Your task to perform on an android device: check battery use Image 0: 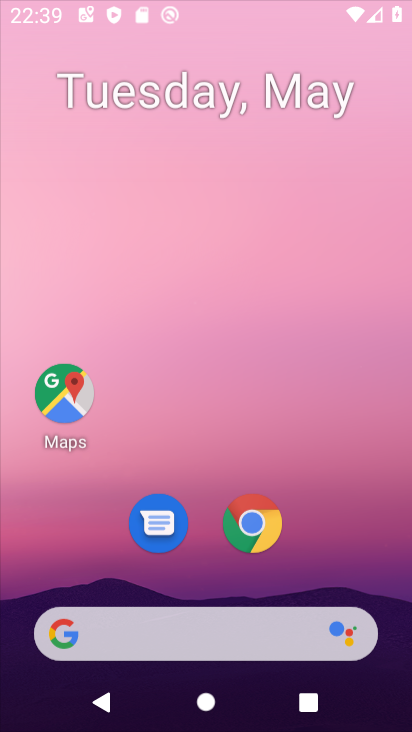
Step 0: click (278, 77)
Your task to perform on an android device: check battery use Image 1: 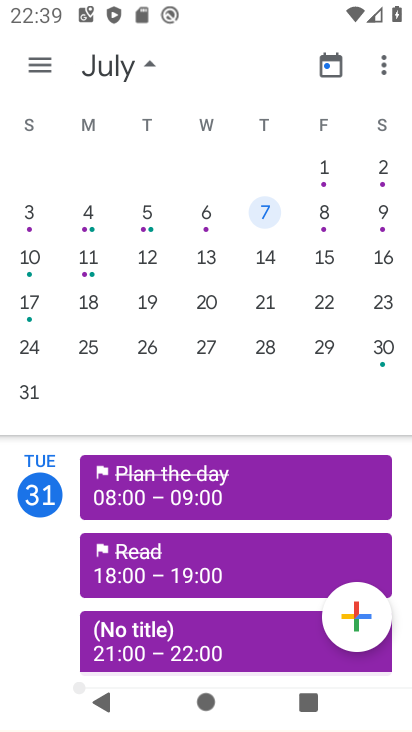
Step 1: drag from (219, 530) to (277, 85)
Your task to perform on an android device: check battery use Image 2: 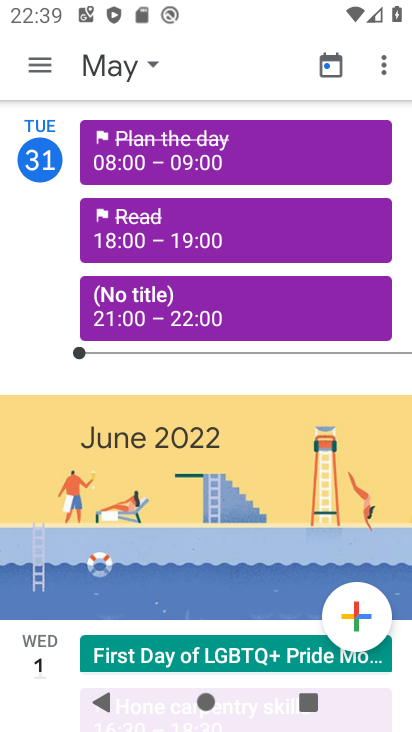
Step 2: drag from (257, 375) to (402, 655)
Your task to perform on an android device: check battery use Image 3: 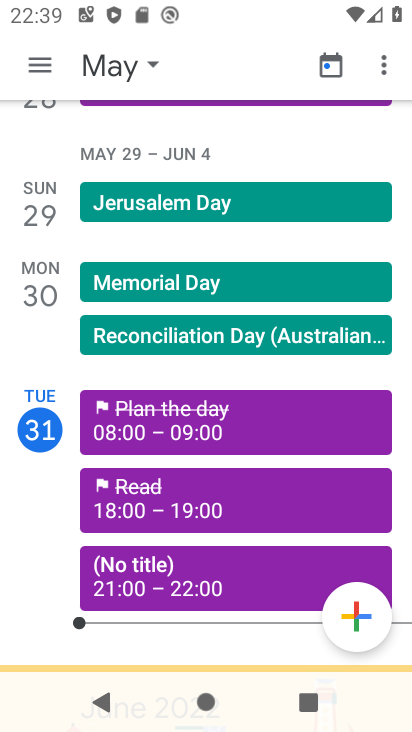
Step 3: press home button
Your task to perform on an android device: check battery use Image 4: 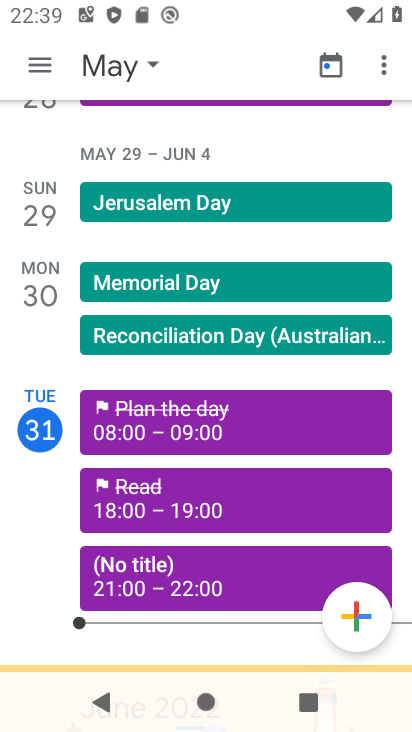
Step 4: drag from (402, 655) to (410, 544)
Your task to perform on an android device: check battery use Image 5: 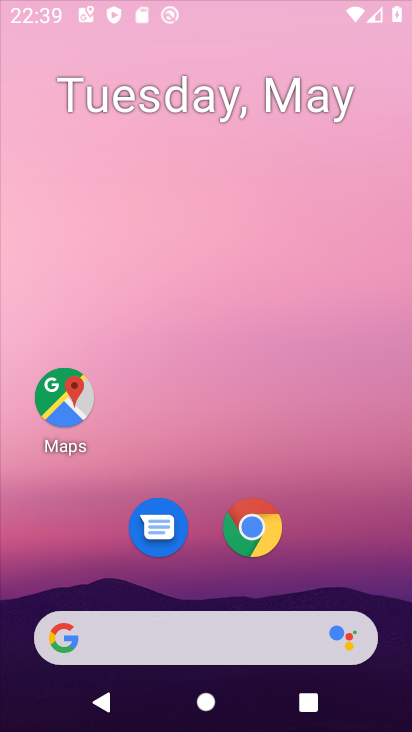
Step 5: click (259, 162)
Your task to perform on an android device: check battery use Image 6: 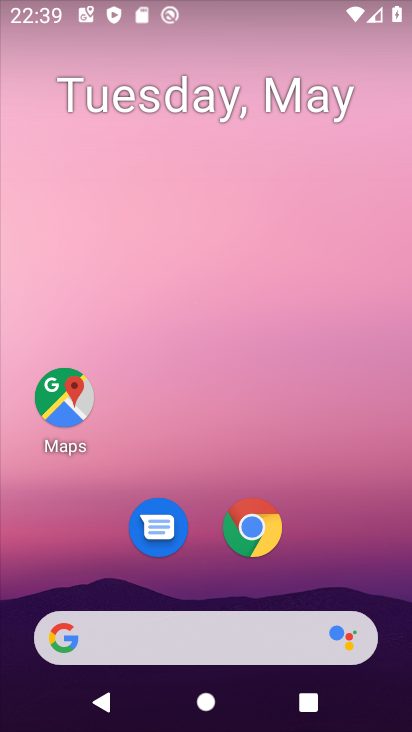
Step 6: drag from (217, 557) to (272, 60)
Your task to perform on an android device: check battery use Image 7: 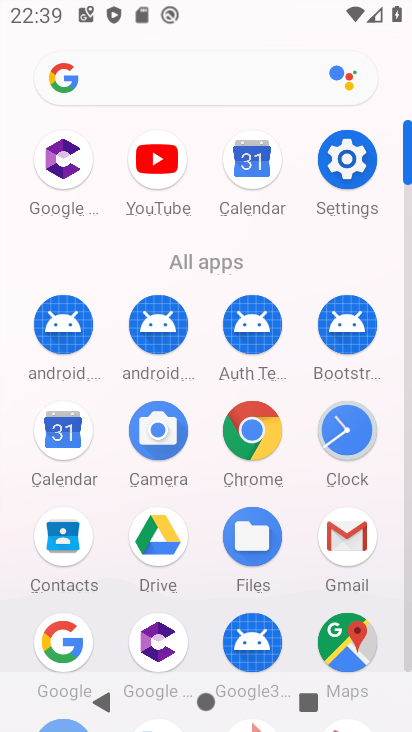
Step 7: click (351, 153)
Your task to perform on an android device: check battery use Image 8: 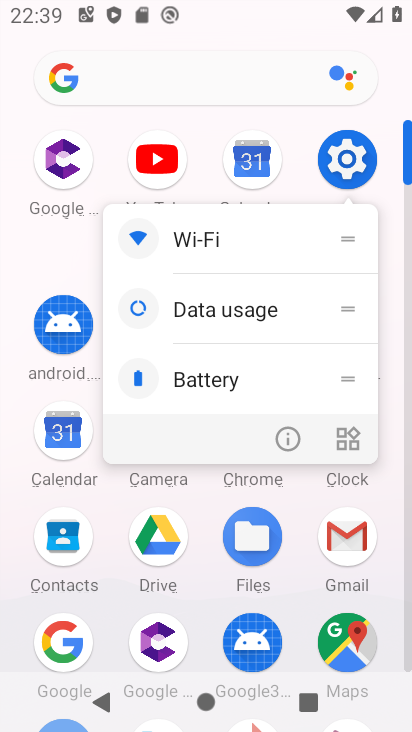
Step 8: click (279, 444)
Your task to perform on an android device: check battery use Image 9: 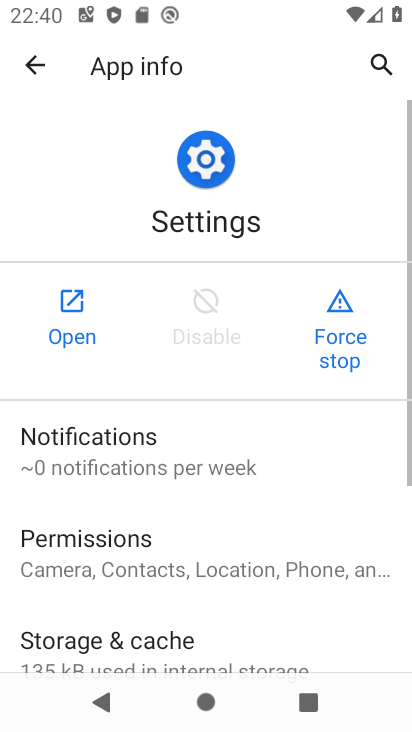
Step 9: click (36, 335)
Your task to perform on an android device: check battery use Image 10: 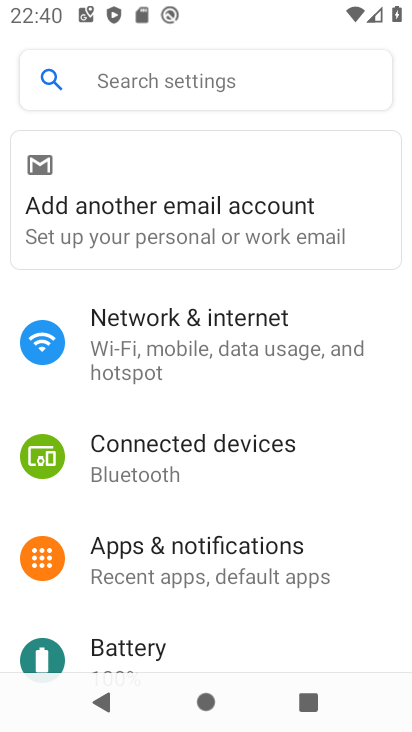
Step 10: drag from (252, 657) to (262, 74)
Your task to perform on an android device: check battery use Image 11: 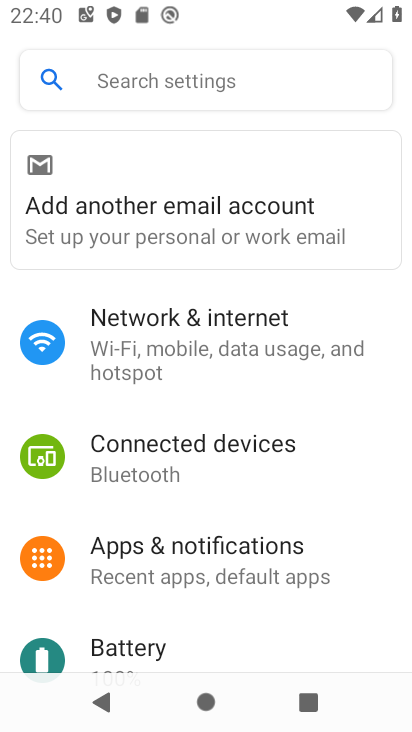
Step 11: click (193, 639)
Your task to perform on an android device: check battery use Image 12: 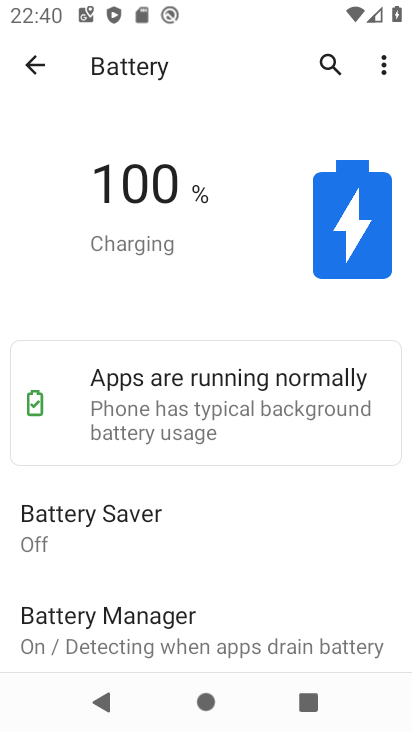
Step 12: drag from (204, 584) to (254, 100)
Your task to perform on an android device: check battery use Image 13: 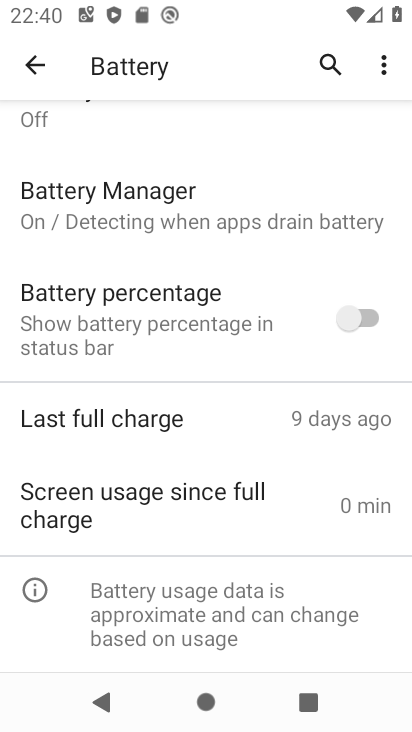
Step 13: drag from (188, 628) to (229, 288)
Your task to perform on an android device: check battery use Image 14: 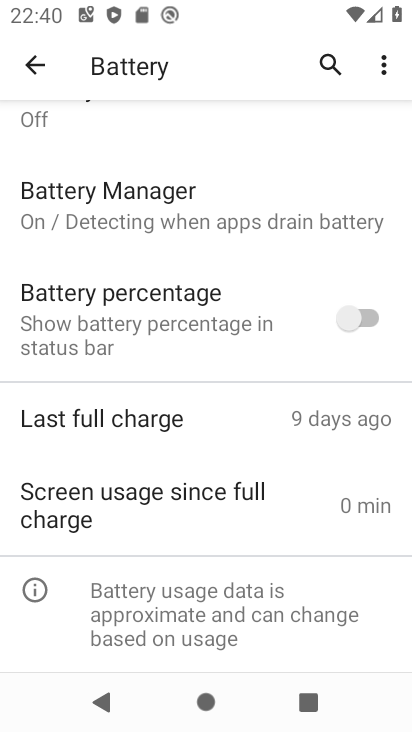
Step 14: drag from (178, 193) to (293, 577)
Your task to perform on an android device: check battery use Image 15: 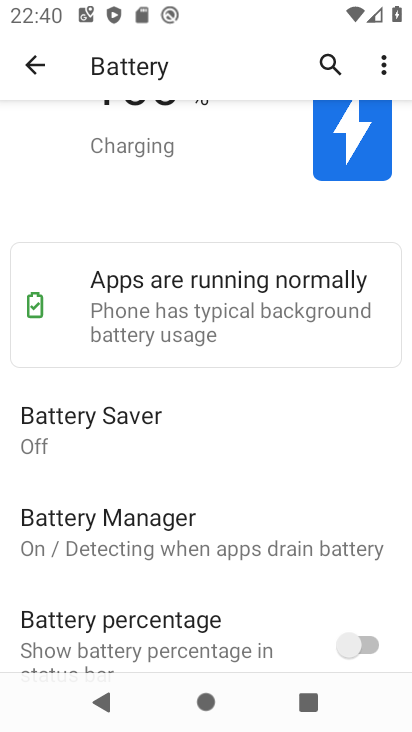
Step 15: drag from (162, 250) to (266, 487)
Your task to perform on an android device: check battery use Image 16: 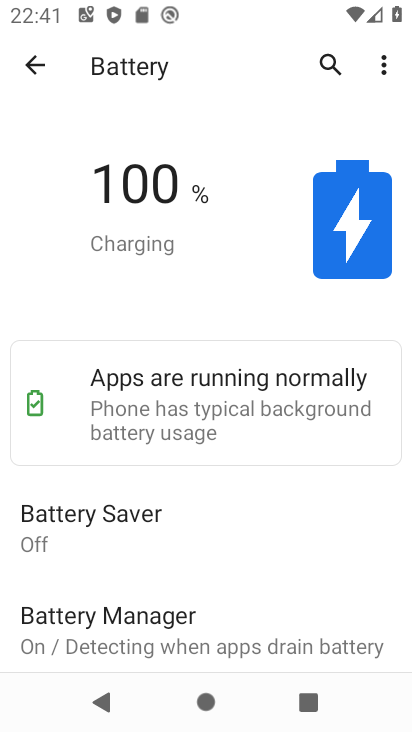
Step 16: drag from (194, 298) to (411, 631)
Your task to perform on an android device: check battery use Image 17: 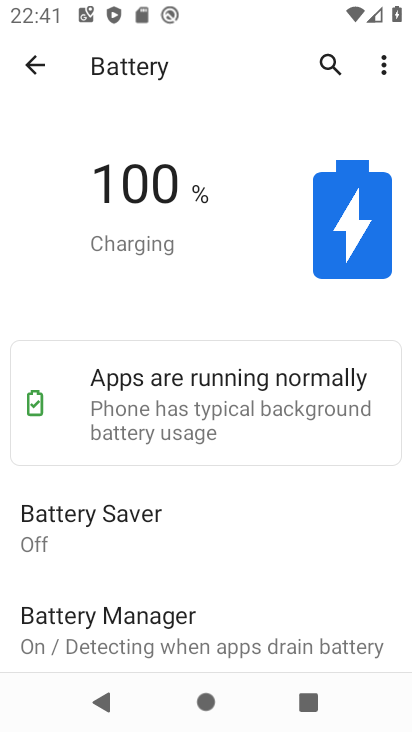
Step 17: drag from (196, 582) to (230, 331)
Your task to perform on an android device: check battery use Image 18: 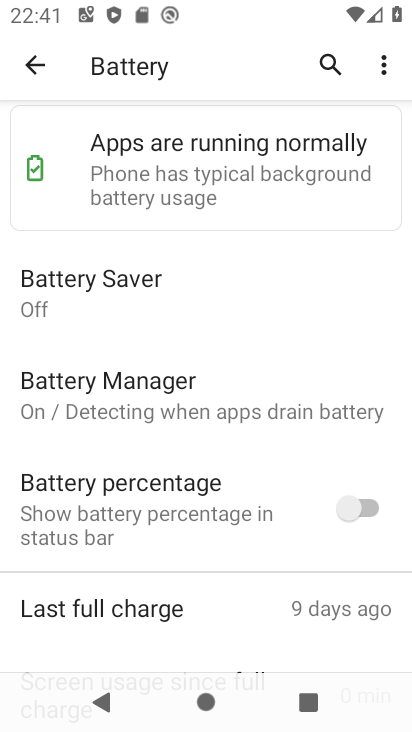
Step 18: click (139, 301)
Your task to perform on an android device: check battery use Image 19: 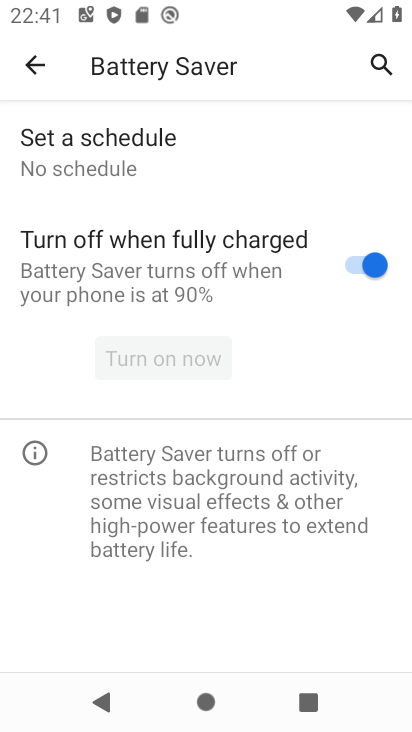
Step 19: click (175, 401)
Your task to perform on an android device: check battery use Image 20: 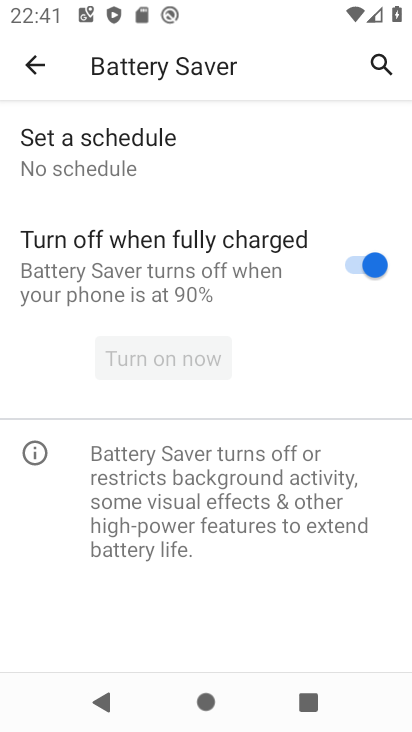
Step 20: drag from (139, 541) to (195, 135)
Your task to perform on an android device: check battery use Image 21: 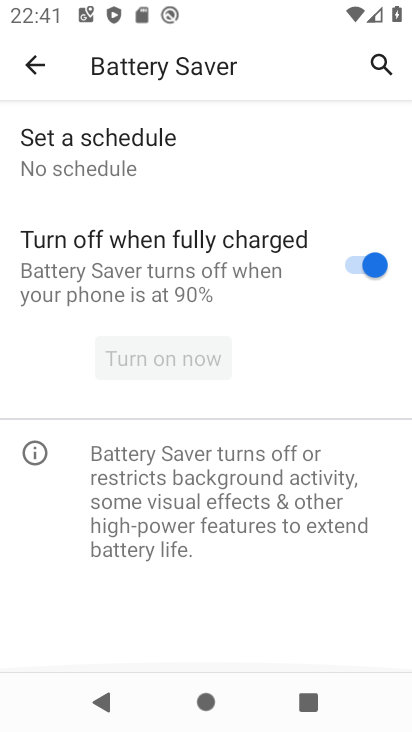
Step 21: drag from (179, 223) to (245, 493)
Your task to perform on an android device: check battery use Image 22: 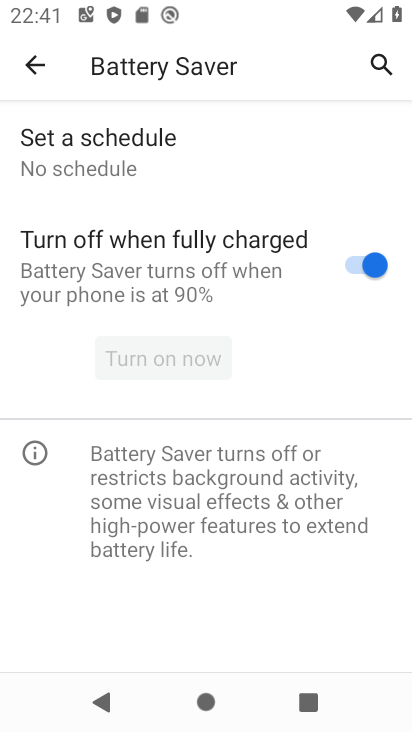
Step 22: drag from (196, 176) to (343, 506)
Your task to perform on an android device: check battery use Image 23: 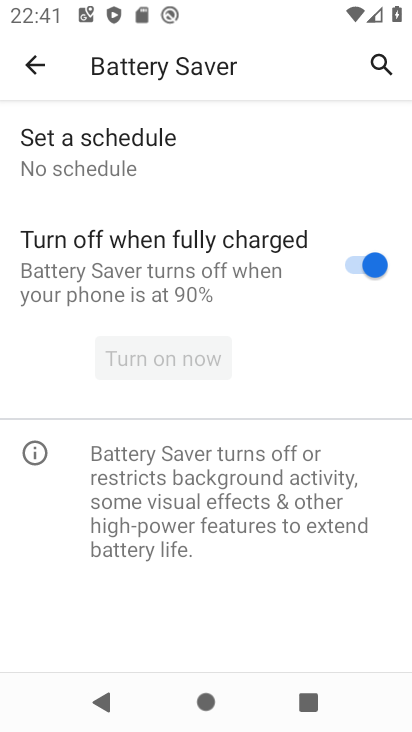
Step 23: drag from (189, 477) to (253, 193)
Your task to perform on an android device: check battery use Image 24: 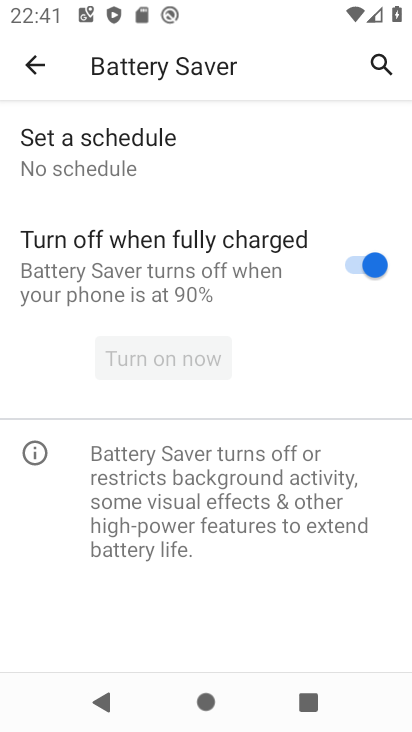
Step 24: click (25, 62)
Your task to perform on an android device: check battery use Image 25: 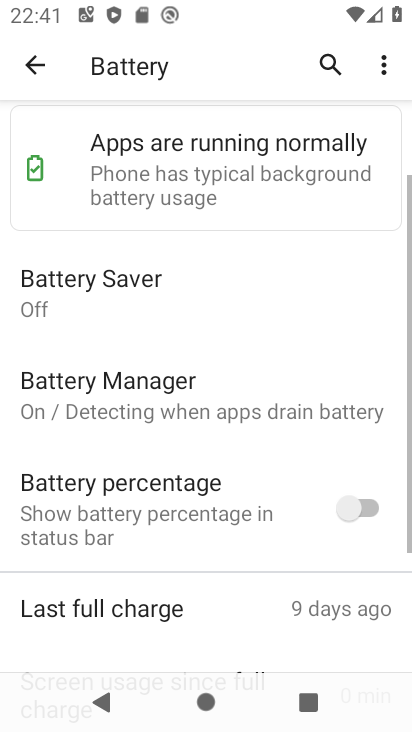
Step 25: click (378, 79)
Your task to perform on an android device: check battery use Image 26: 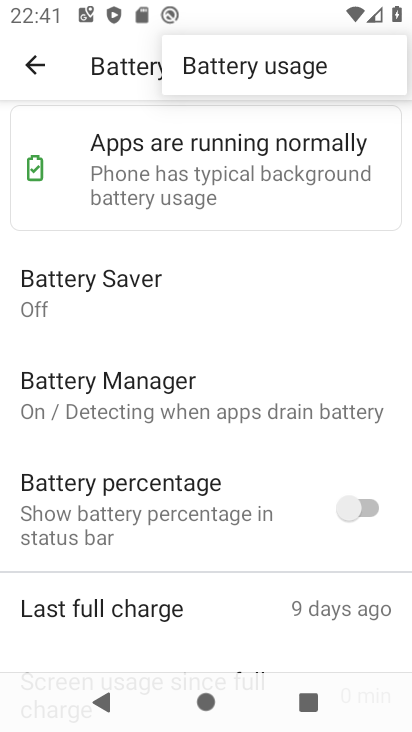
Step 26: click (225, 71)
Your task to perform on an android device: check battery use Image 27: 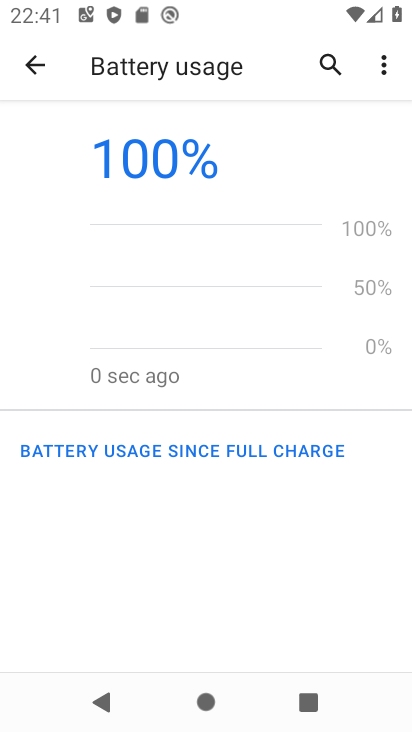
Step 27: task complete